Your task to perform on an android device: toggle data saver in the chrome app Image 0: 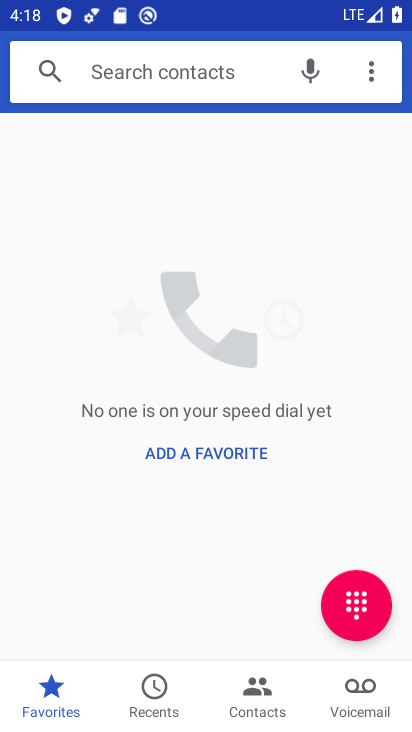
Step 0: press home button
Your task to perform on an android device: toggle data saver in the chrome app Image 1: 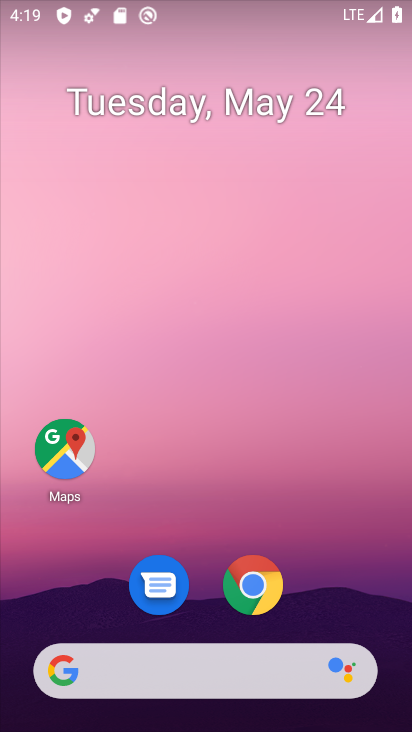
Step 1: click (255, 589)
Your task to perform on an android device: toggle data saver in the chrome app Image 2: 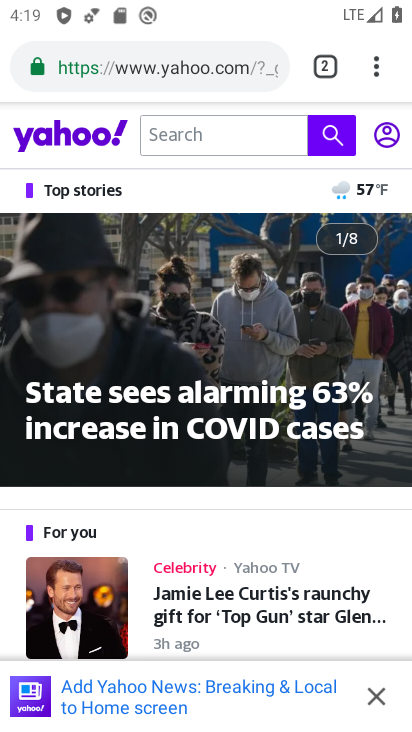
Step 2: click (373, 52)
Your task to perform on an android device: toggle data saver in the chrome app Image 3: 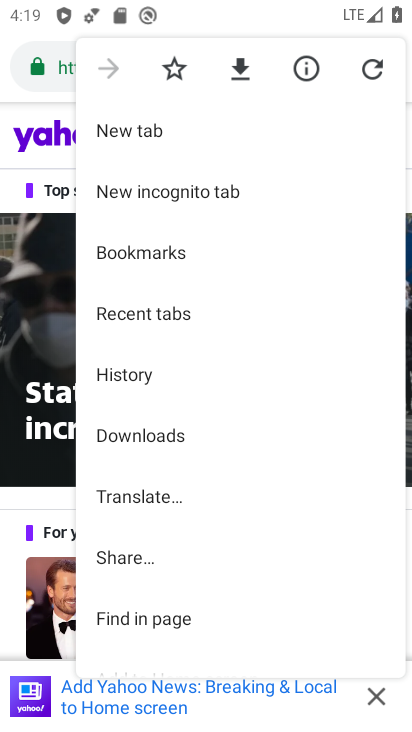
Step 3: drag from (243, 536) to (266, 283)
Your task to perform on an android device: toggle data saver in the chrome app Image 4: 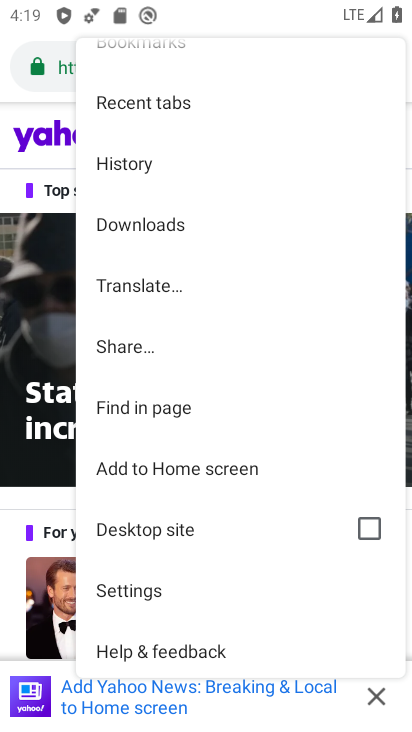
Step 4: click (159, 584)
Your task to perform on an android device: toggle data saver in the chrome app Image 5: 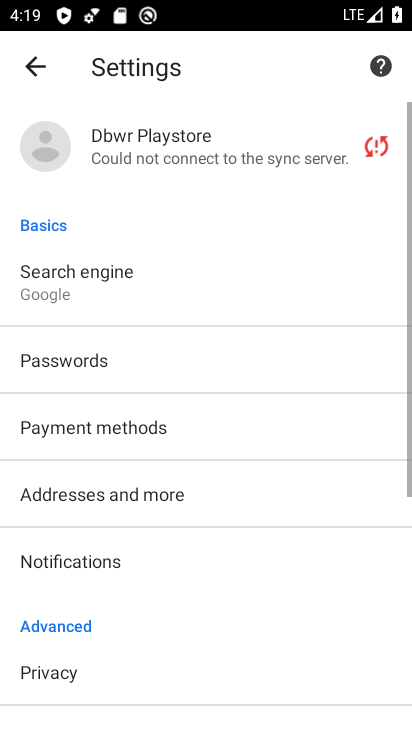
Step 5: drag from (234, 542) to (306, 165)
Your task to perform on an android device: toggle data saver in the chrome app Image 6: 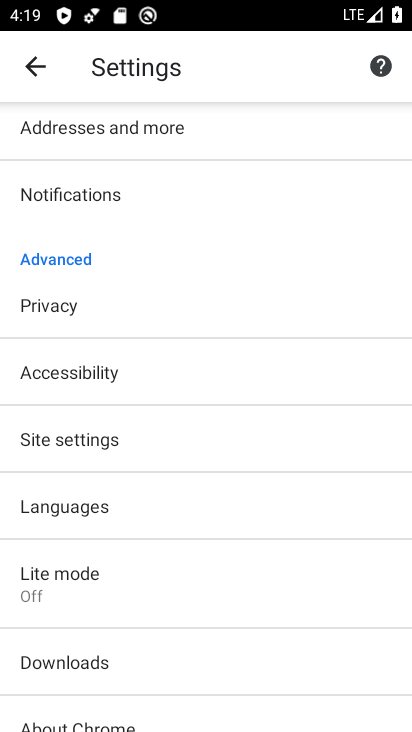
Step 6: click (132, 570)
Your task to perform on an android device: toggle data saver in the chrome app Image 7: 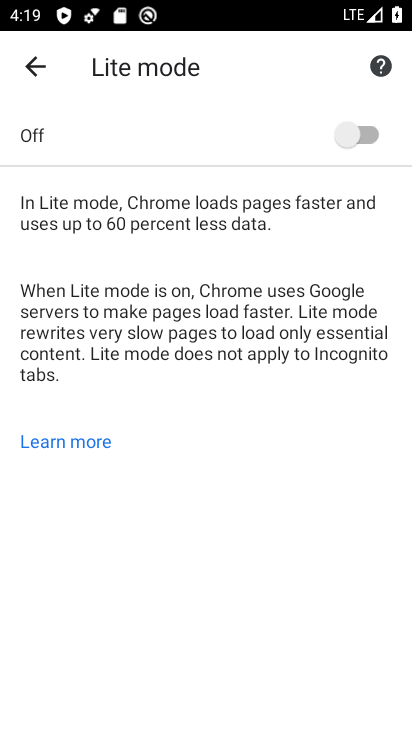
Step 7: click (353, 134)
Your task to perform on an android device: toggle data saver in the chrome app Image 8: 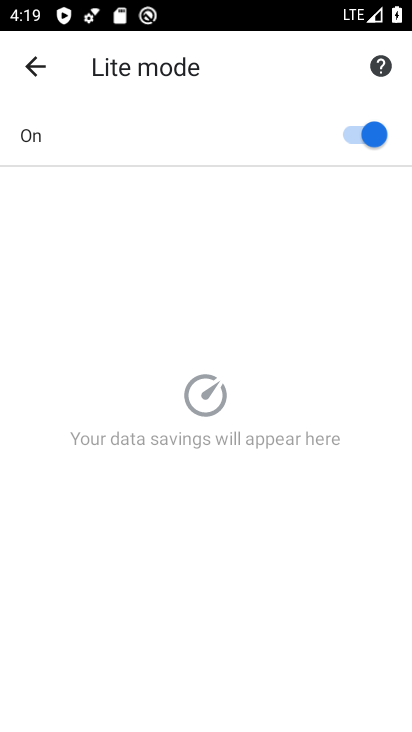
Step 8: task complete